Your task to perform on an android device: Open Youtube and go to "Your channel" Image 0: 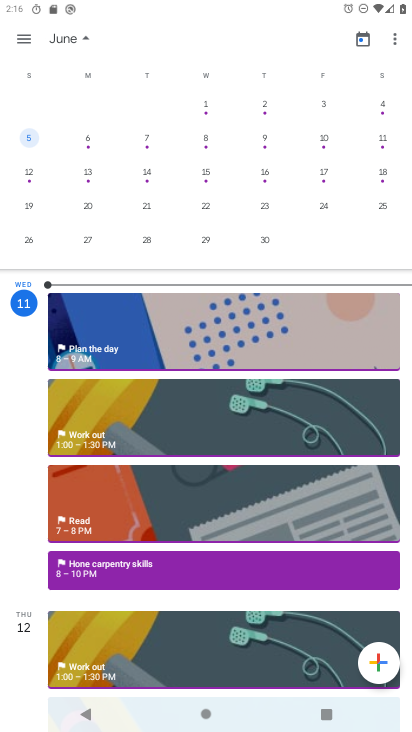
Step 0: press home button
Your task to perform on an android device: Open Youtube and go to "Your channel" Image 1: 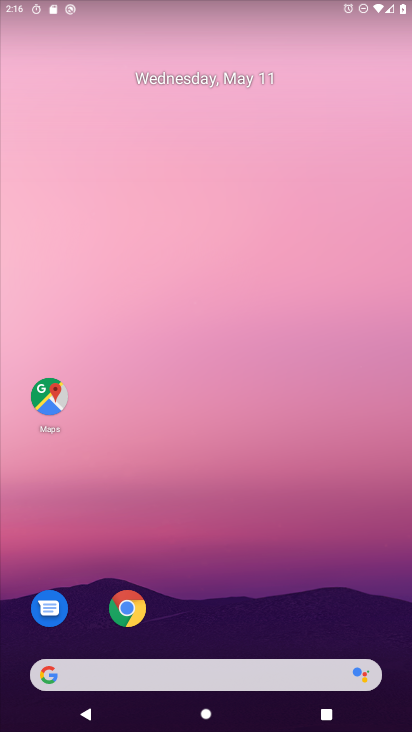
Step 1: drag from (242, 707) to (306, 91)
Your task to perform on an android device: Open Youtube and go to "Your channel" Image 2: 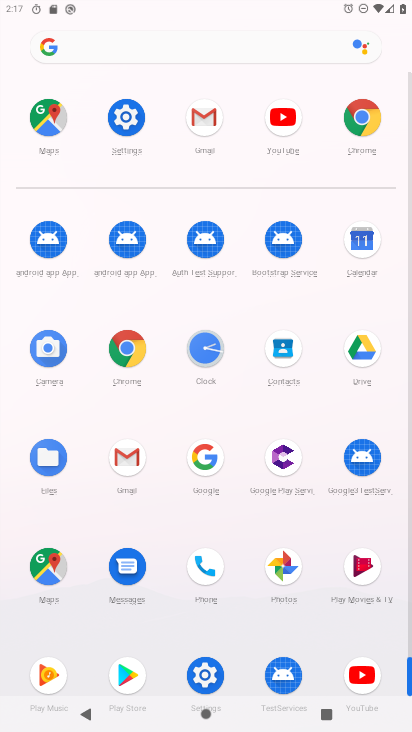
Step 2: click (370, 674)
Your task to perform on an android device: Open Youtube and go to "Your channel" Image 3: 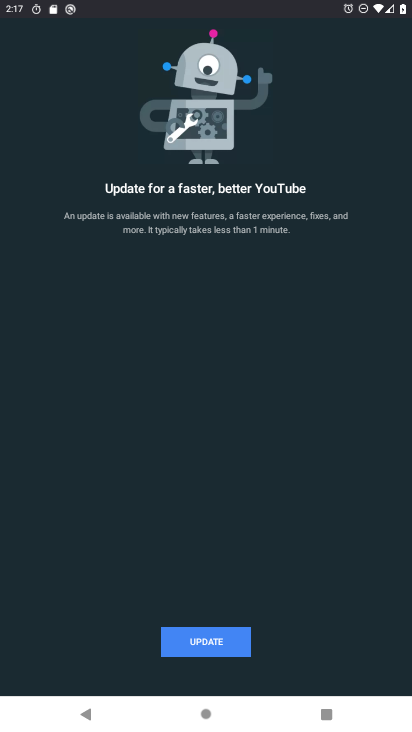
Step 3: task complete